Your task to perform on an android device: allow notifications from all sites in the chrome app Image 0: 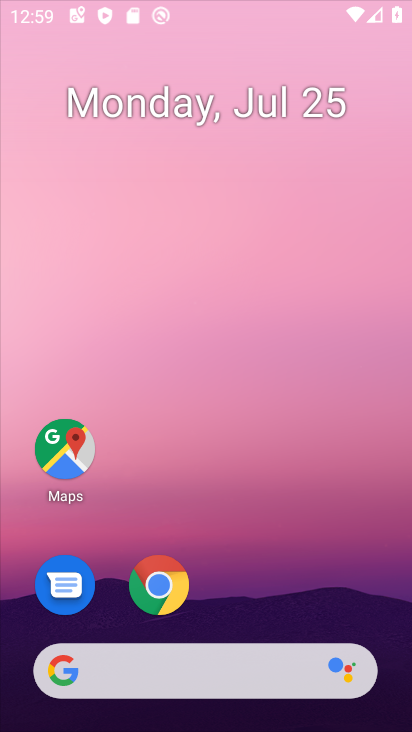
Step 0: click (355, 402)
Your task to perform on an android device: allow notifications from all sites in the chrome app Image 1: 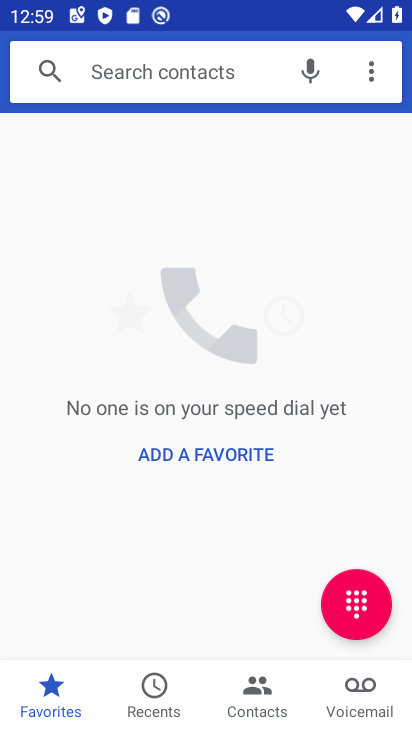
Step 1: press home button
Your task to perform on an android device: allow notifications from all sites in the chrome app Image 2: 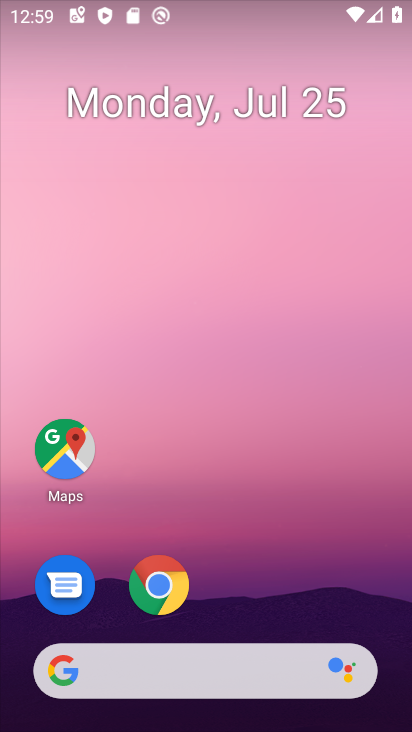
Step 2: click (160, 588)
Your task to perform on an android device: allow notifications from all sites in the chrome app Image 3: 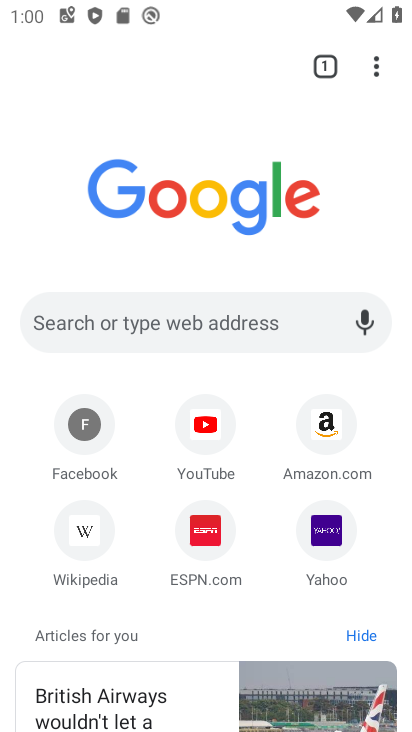
Step 3: click (372, 69)
Your task to perform on an android device: allow notifications from all sites in the chrome app Image 4: 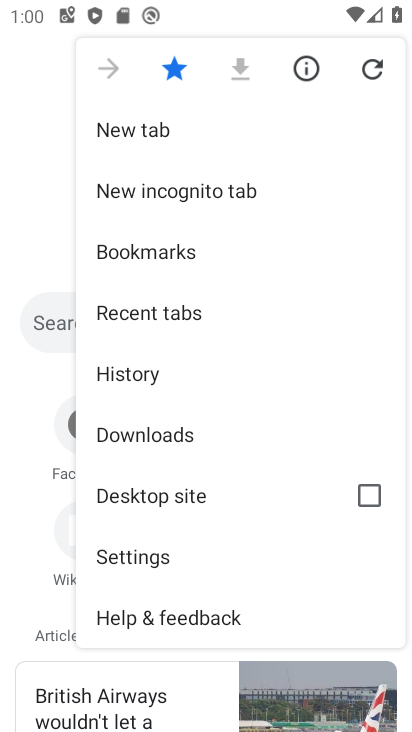
Step 4: click (163, 552)
Your task to perform on an android device: allow notifications from all sites in the chrome app Image 5: 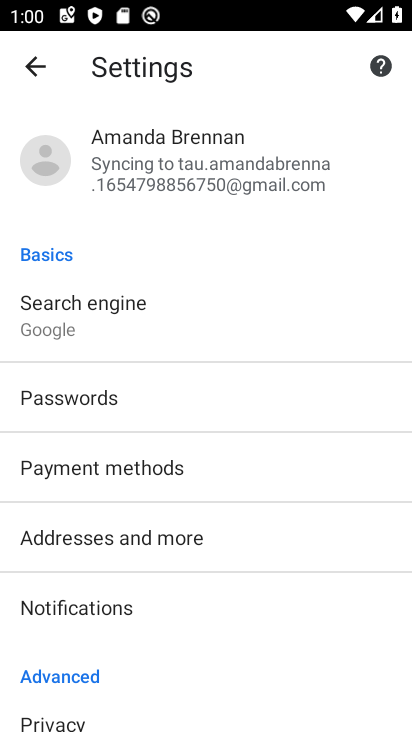
Step 5: click (120, 604)
Your task to perform on an android device: allow notifications from all sites in the chrome app Image 6: 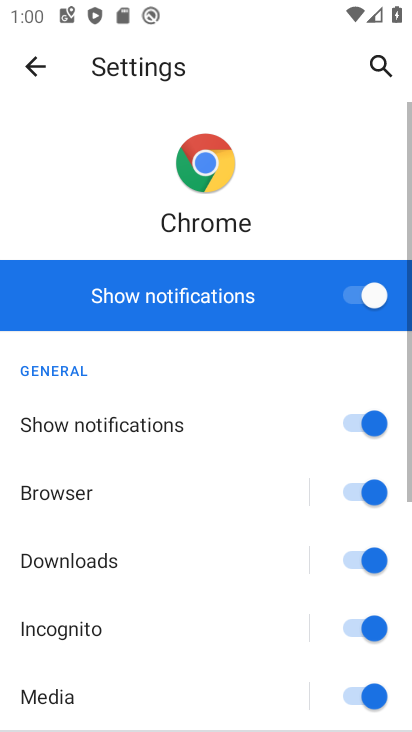
Step 6: task complete